Your task to perform on an android device: toggle airplane mode Image 0: 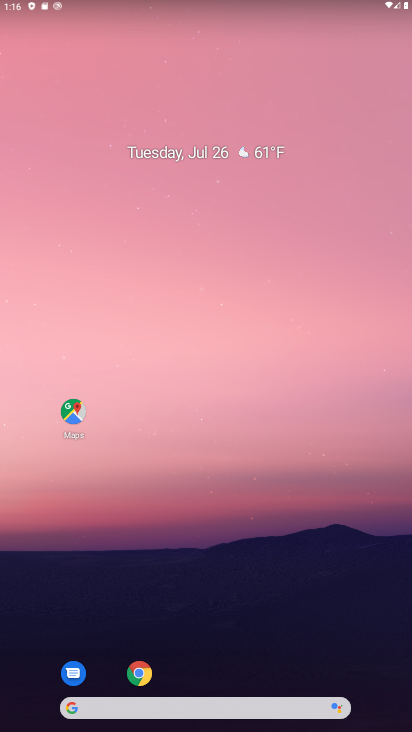
Step 0: drag from (247, 30) to (114, 10)
Your task to perform on an android device: toggle airplane mode Image 1: 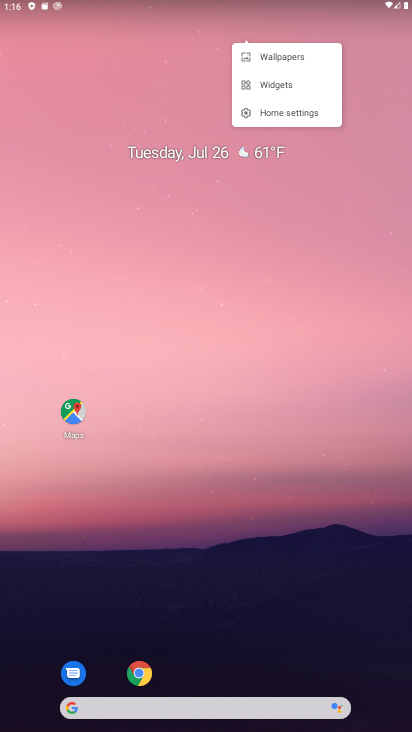
Step 1: drag from (209, 636) to (253, 54)
Your task to perform on an android device: toggle airplane mode Image 2: 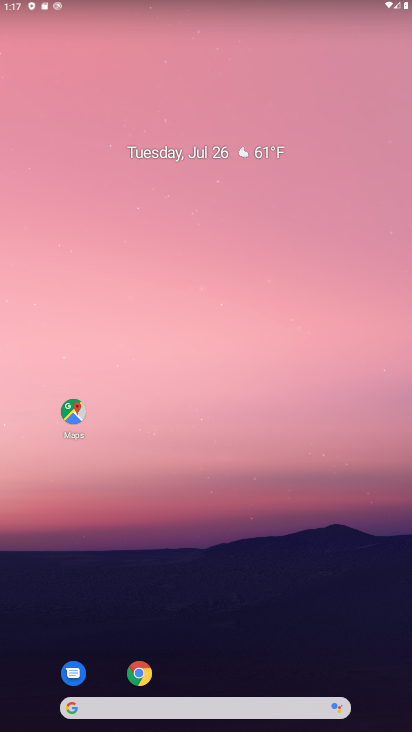
Step 2: drag from (197, 620) to (361, 558)
Your task to perform on an android device: toggle airplane mode Image 3: 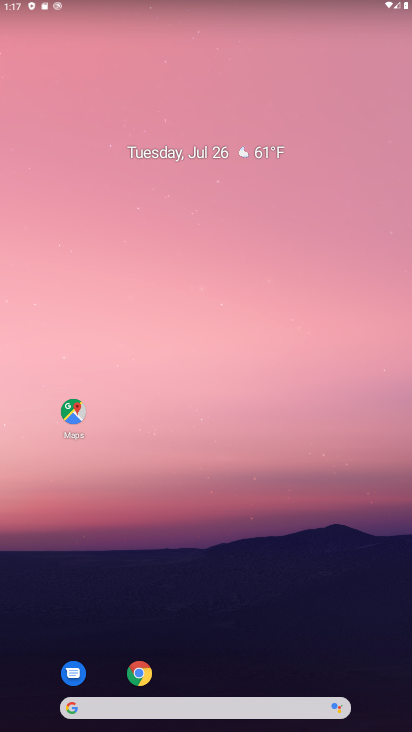
Step 3: drag from (178, 663) to (278, 151)
Your task to perform on an android device: toggle airplane mode Image 4: 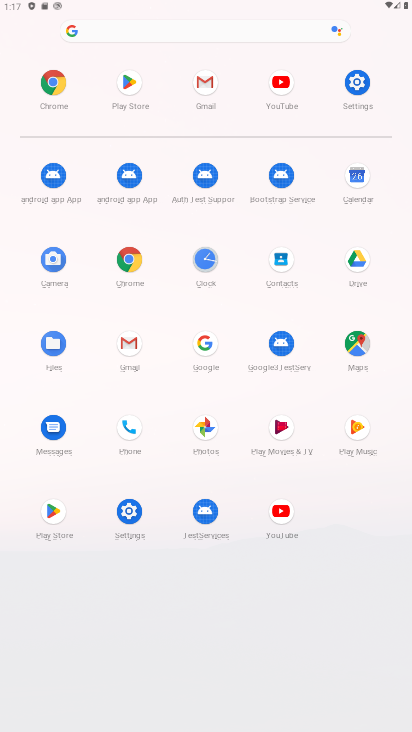
Step 4: click (361, 85)
Your task to perform on an android device: toggle airplane mode Image 5: 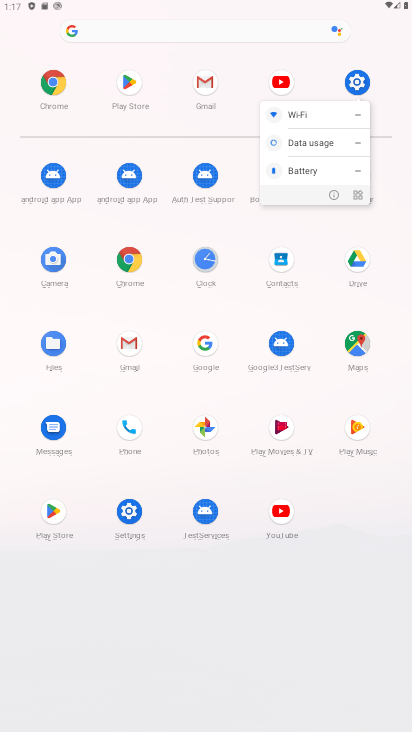
Step 5: click (338, 194)
Your task to perform on an android device: toggle airplane mode Image 6: 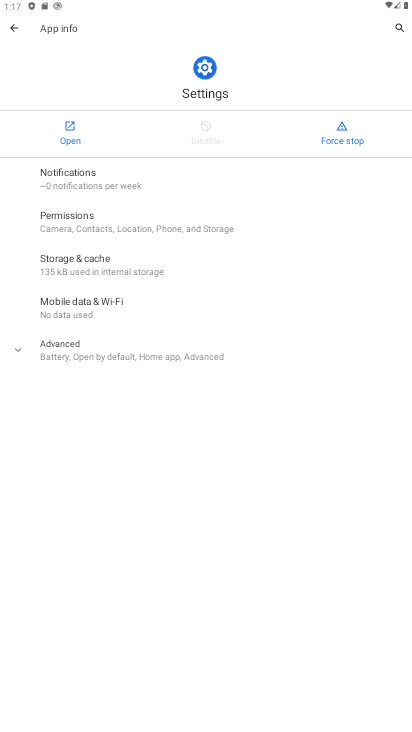
Step 6: click (72, 132)
Your task to perform on an android device: toggle airplane mode Image 7: 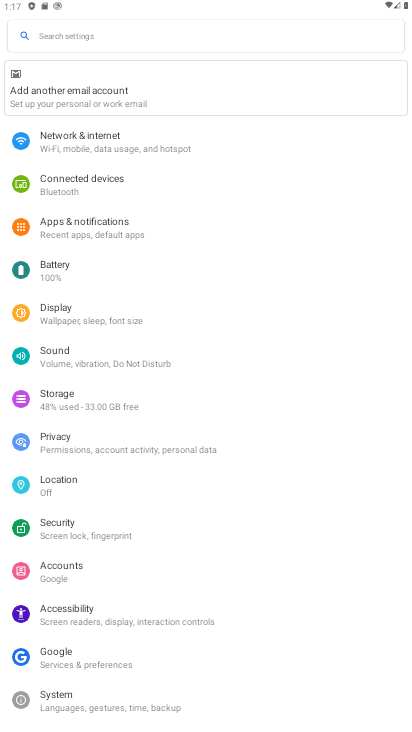
Step 7: click (112, 148)
Your task to perform on an android device: toggle airplane mode Image 8: 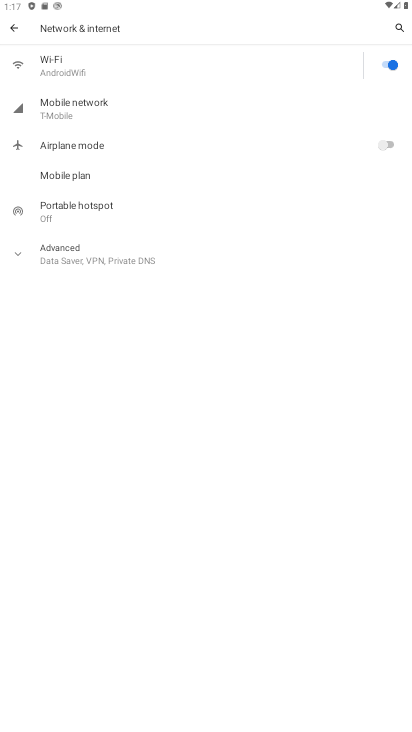
Step 8: click (79, 140)
Your task to perform on an android device: toggle airplane mode Image 9: 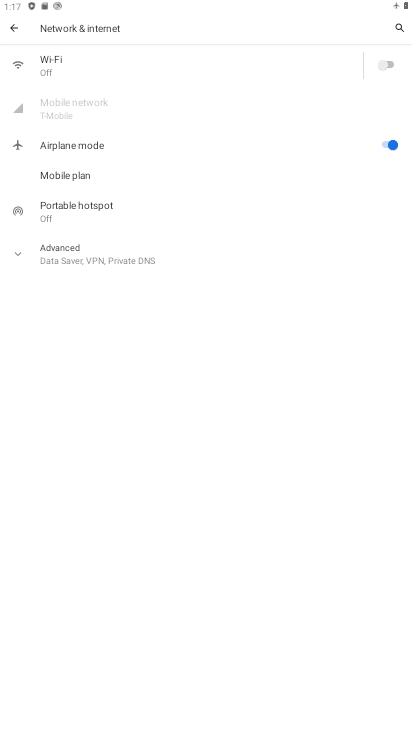
Step 9: task complete